Your task to perform on an android device: check storage Image 0: 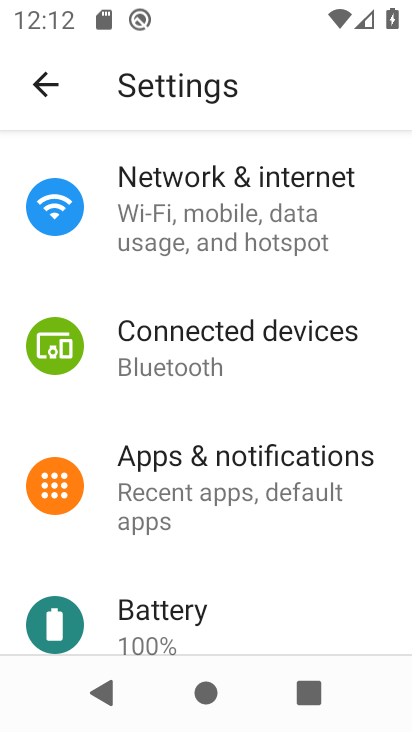
Step 0: press home button
Your task to perform on an android device: check storage Image 1: 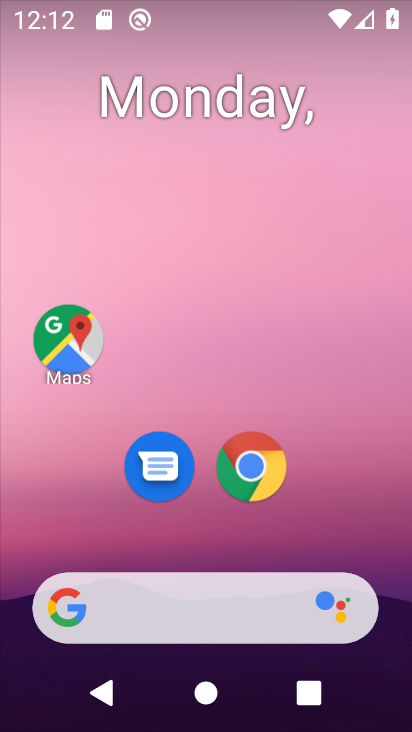
Step 1: drag from (199, 356) to (355, 4)
Your task to perform on an android device: check storage Image 2: 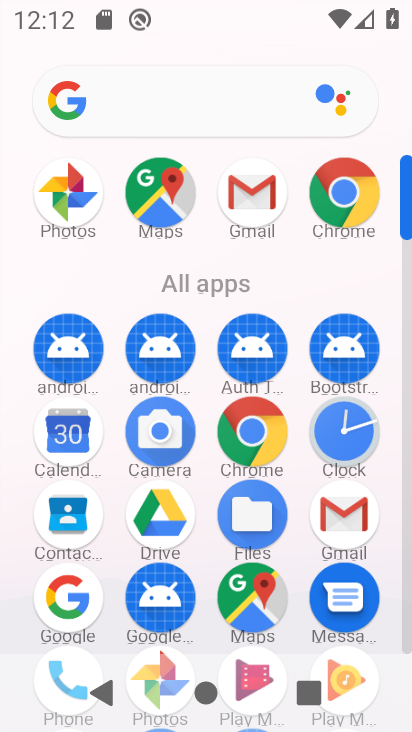
Step 2: drag from (268, 626) to (274, 344)
Your task to perform on an android device: check storage Image 3: 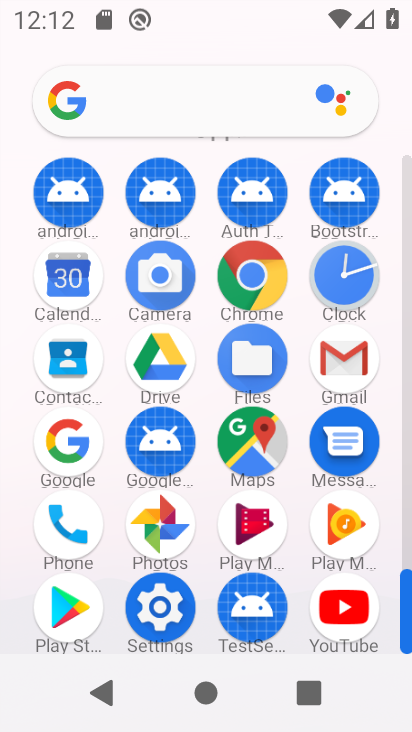
Step 3: click (161, 600)
Your task to perform on an android device: check storage Image 4: 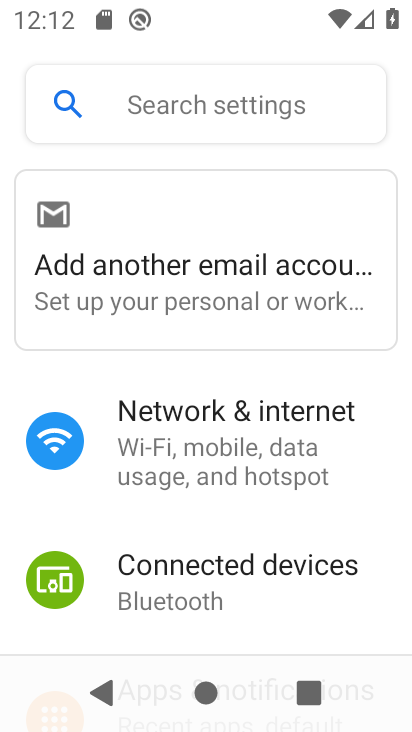
Step 4: drag from (241, 542) to (198, 166)
Your task to perform on an android device: check storage Image 5: 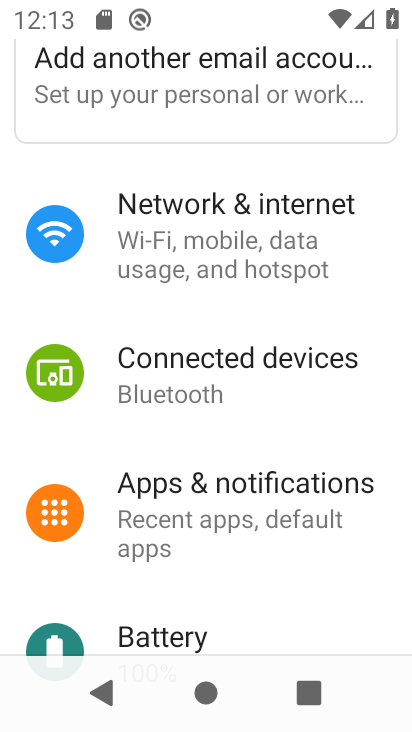
Step 5: drag from (259, 568) to (228, 386)
Your task to perform on an android device: check storage Image 6: 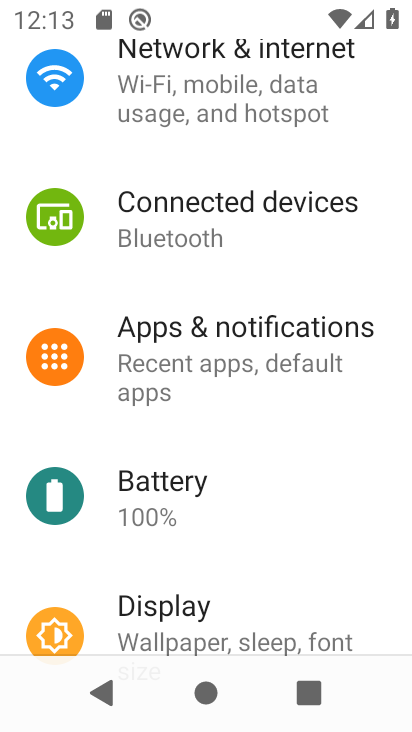
Step 6: drag from (235, 563) to (233, 312)
Your task to perform on an android device: check storage Image 7: 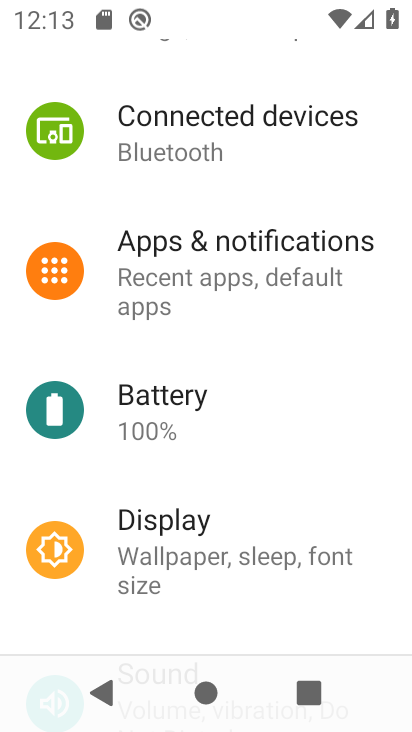
Step 7: drag from (210, 549) to (402, 17)
Your task to perform on an android device: check storage Image 8: 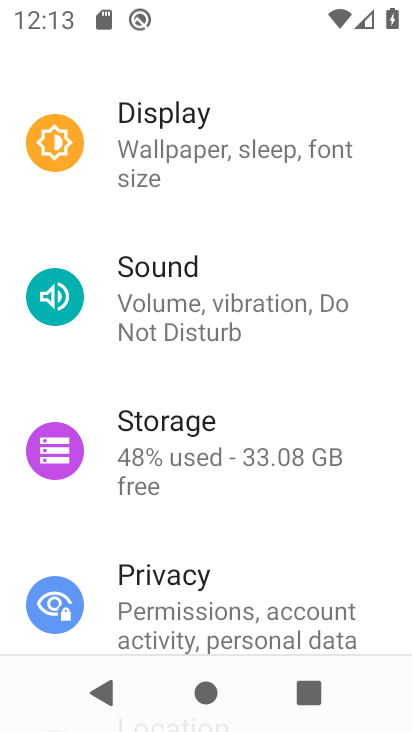
Step 8: click (194, 451)
Your task to perform on an android device: check storage Image 9: 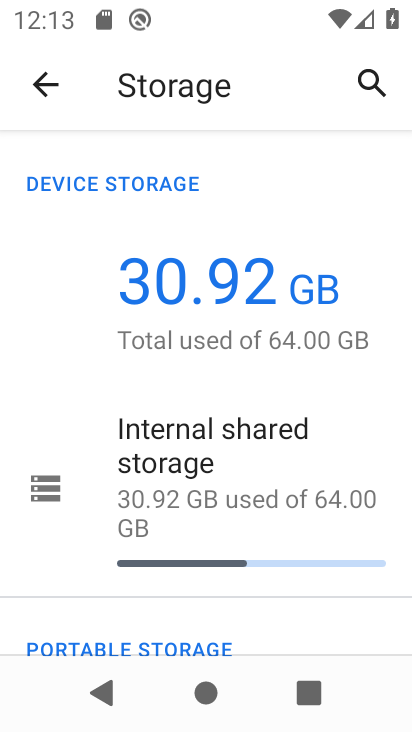
Step 9: task complete